Your task to perform on an android device: Open calendar and show me the second week of next month Image 0: 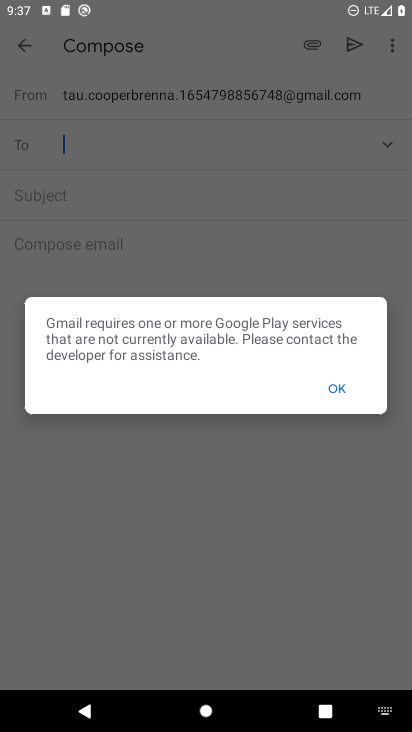
Step 0: press home button
Your task to perform on an android device: Open calendar and show me the second week of next month Image 1: 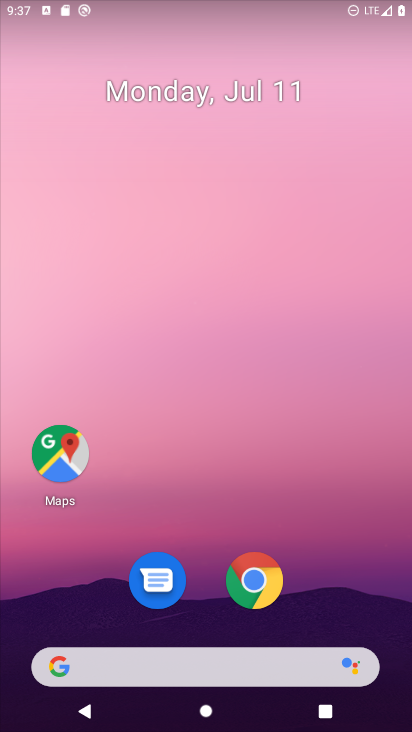
Step 1: drag from (270, 484) to (304, 42)
Your task to perform on an android device: Open calendar and show me the second week of next month Image 2: 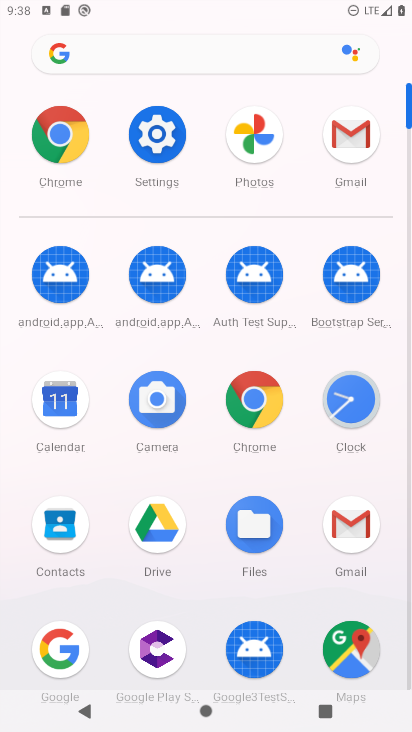
Step 2: click (58, 393)
Your task to perform on an android device: Open calendar and show me the second week of next month Image 3: 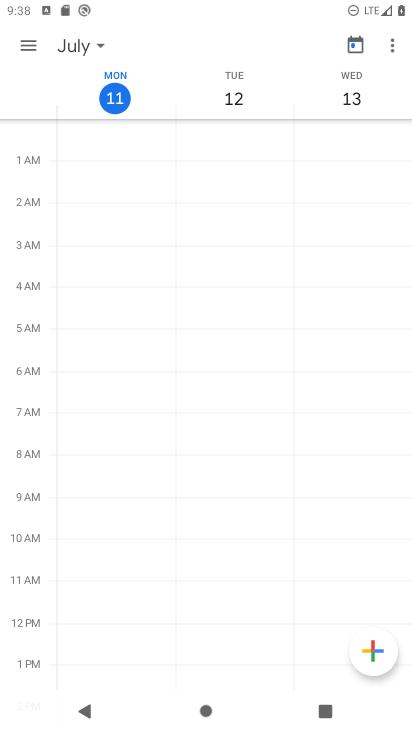
Step 3: click (27, 43)
Your task to perform on an android device: Open calendar and show me the second week of next month Image 4: 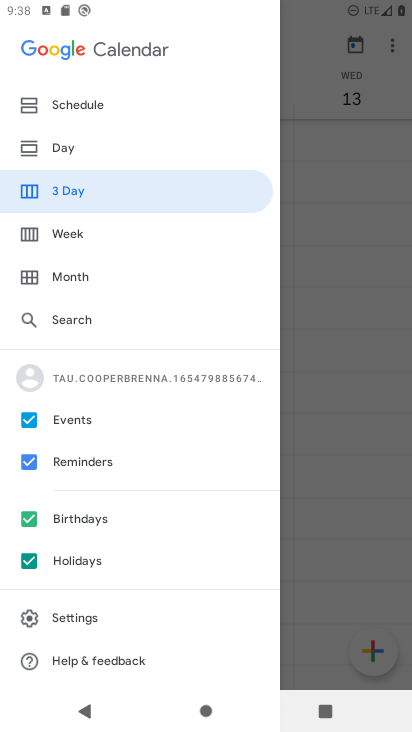
Step 4: click (77, 277)
Your task to perform on an android device: Open calendar and show me the second week of next month Image 5: 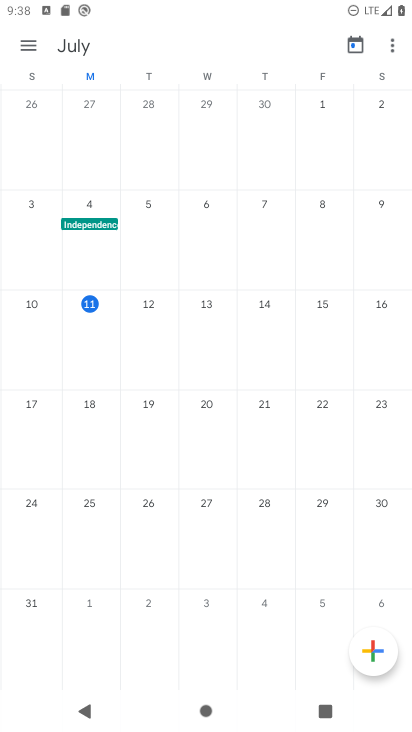
Step 5: drag from (354, 361) to (0, 368)
Your task to perform on an android device: Open calendar and show me the second week of next month Image 6: 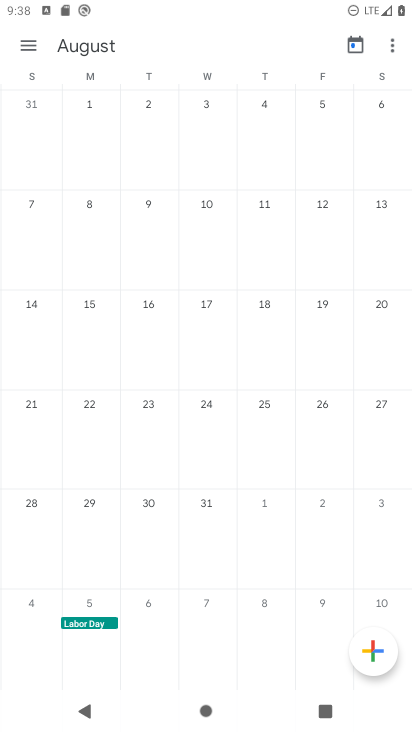
Step 6: click (25, 312)
Your task to perform on an android device: Open calendar and show me the second week of next month Image 7: 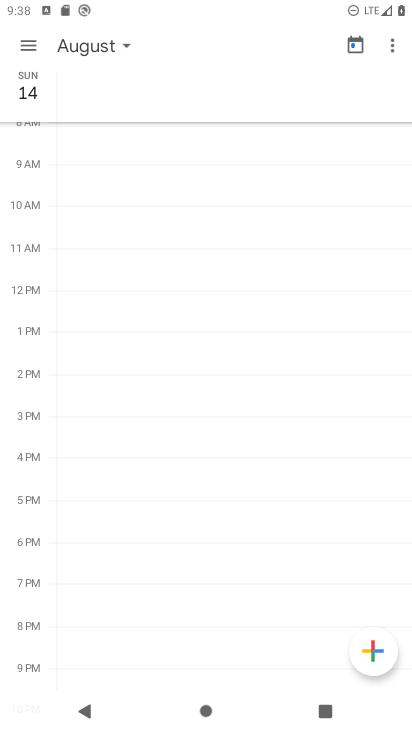
Step 7: click (33, 41)
Your task to perform on an android device: Open calendar and show me the second week of next month Image 8: 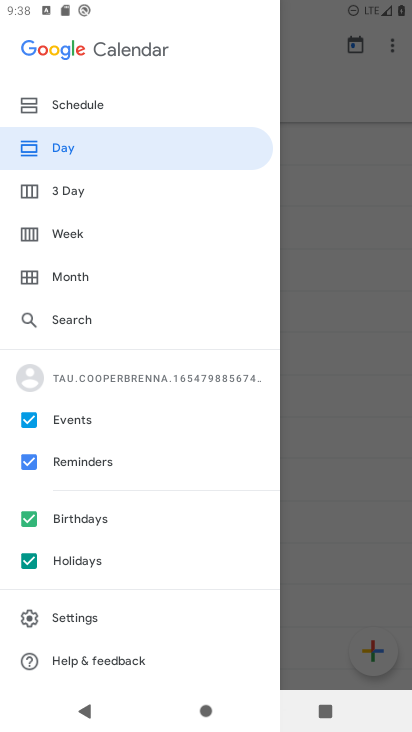
Step 8: click (32, 236)
Your task to perform on an android device: Open calendar and show me the second week of next month Image 9: 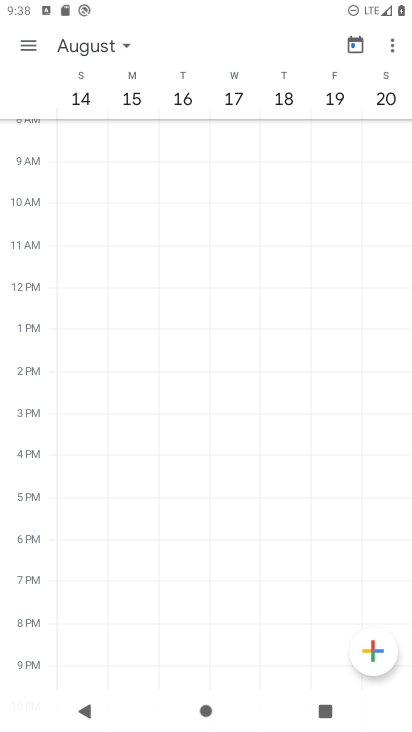
Step 9: task complete